Your task to perform on an android device: Open location settings Image 0: 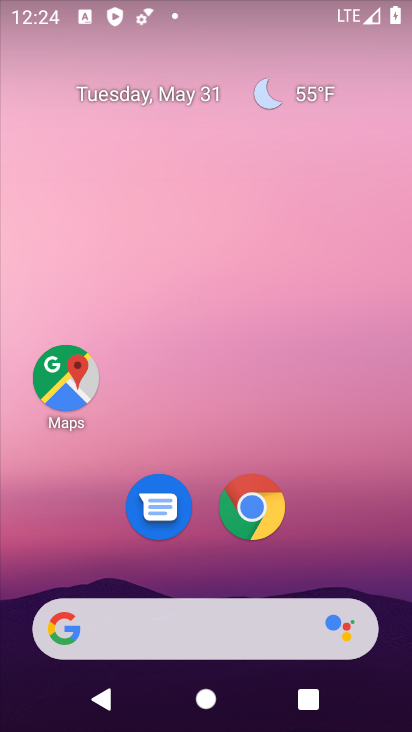
Step 0: drag from (385, 521) to (299, 79)
Your task to perform on an android device: Open location settings Image 1: 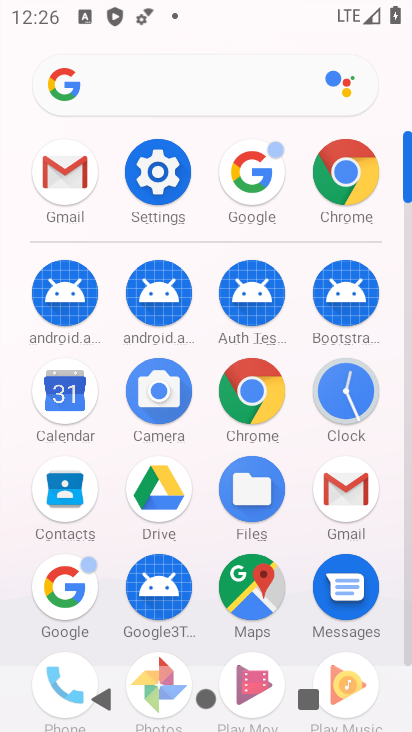
Step 1: click (154, 186)
Your task to perform on an android device: Open location settings Image 2: 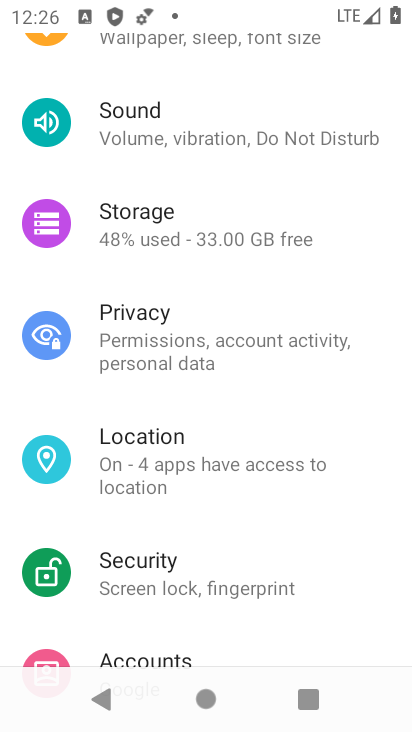
Step 2: click (210, 461)
Your task to perform on an android device: Open location settings Image 3: 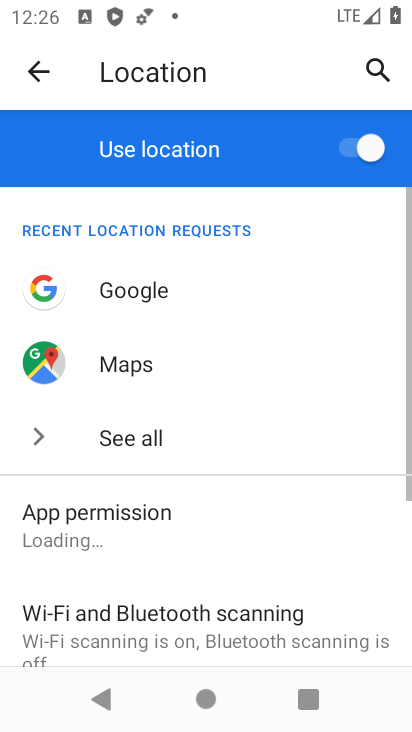
Step 3: task complete